Your task to perform on an android device: Search for "acer nitro" on newegg.com, select the first entry, and add it to the cart. Image 0: 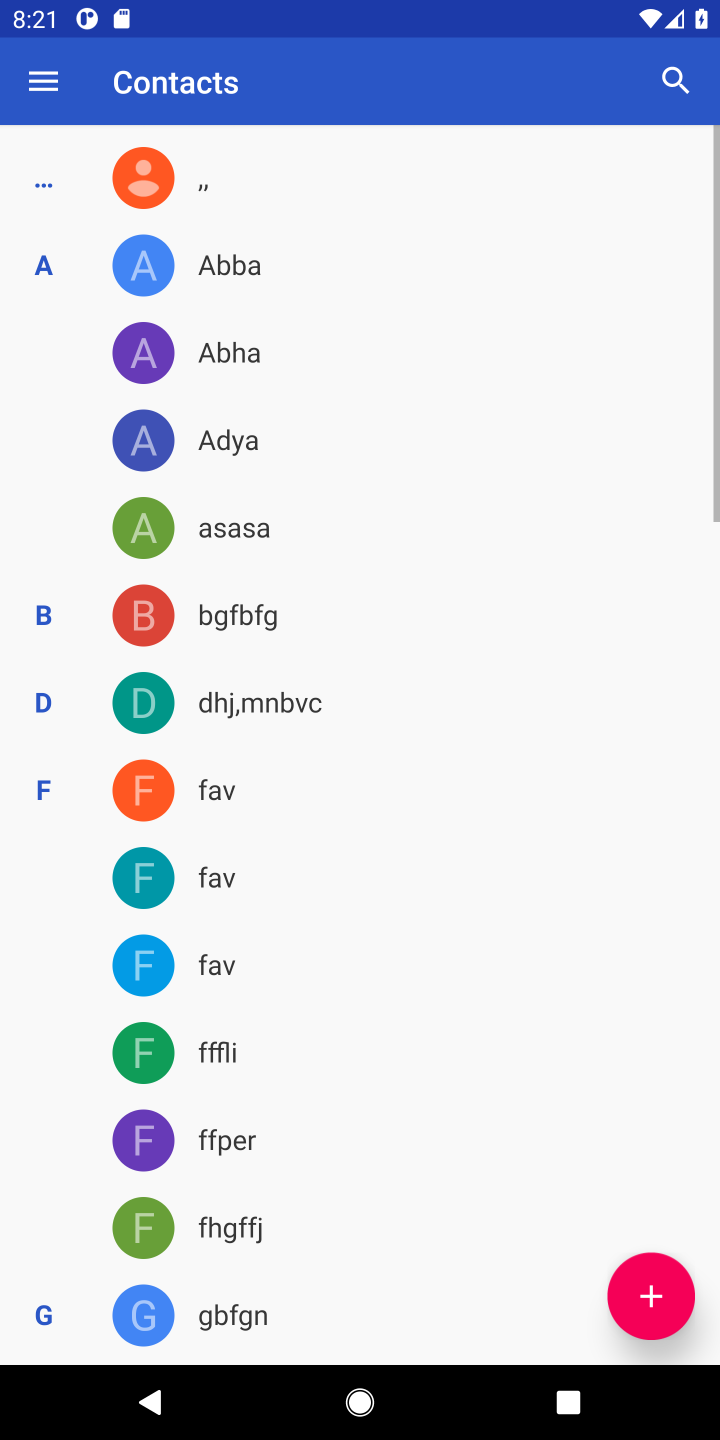
Step 0: press home button
Your task to perform on an android device: Search for "acer nitro" on newegg.com, select the first entry, and add it to the cart. Image 1: 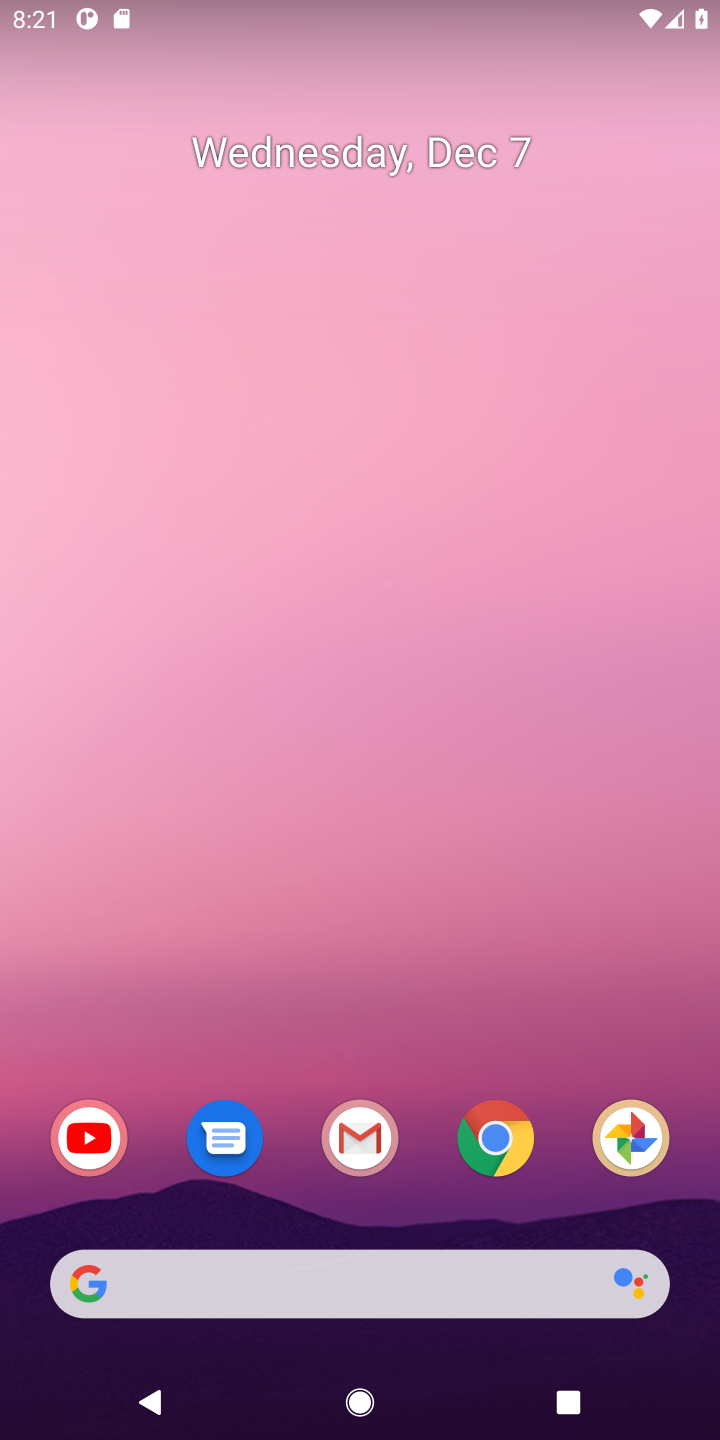
Step 1: click (160, 1295)
Your task to perform on an android device: Search for "acer nitro" on newegg.com, select the first entry, and add it to the cart. Image 2: 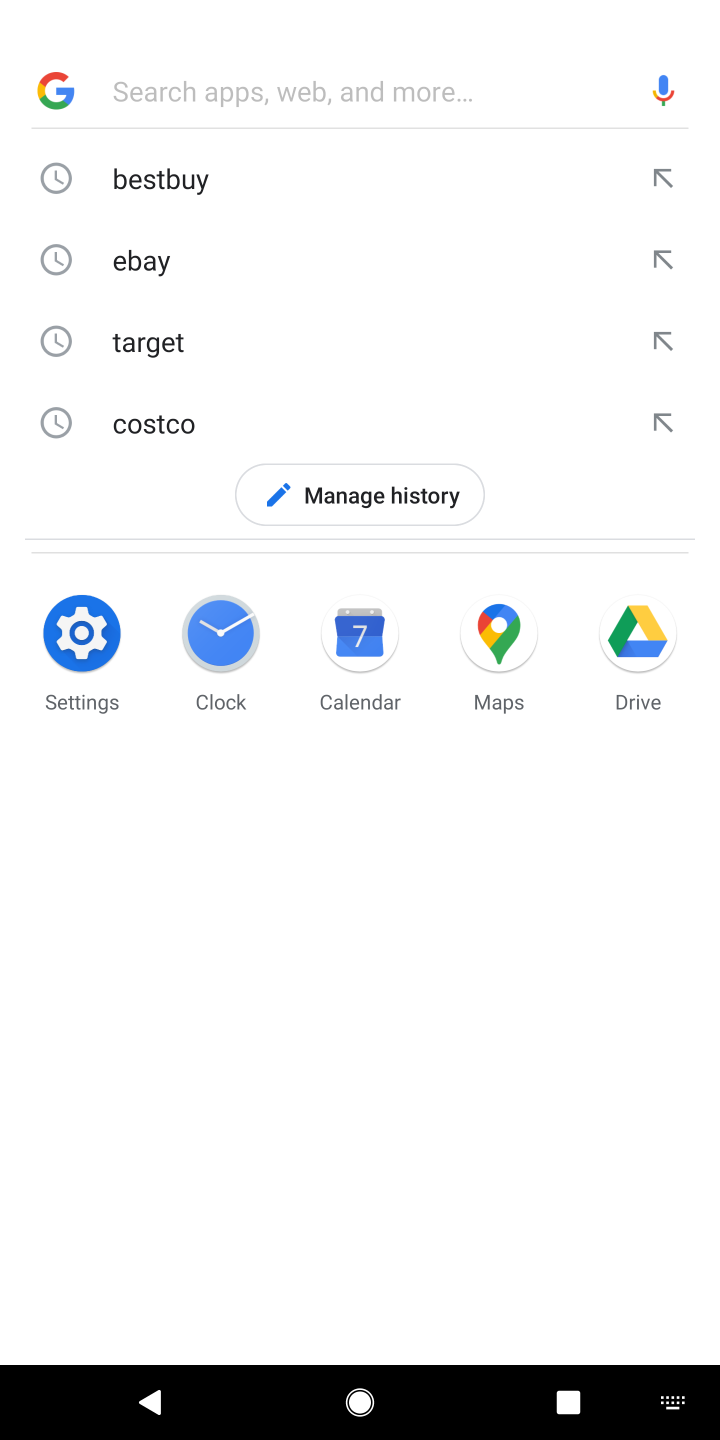
Step 2: type "newegg.com"
Your task to perform on an android device: Search for "acer nitro" on newegg.com, select the first entry, and add it to the cart. Image 3: 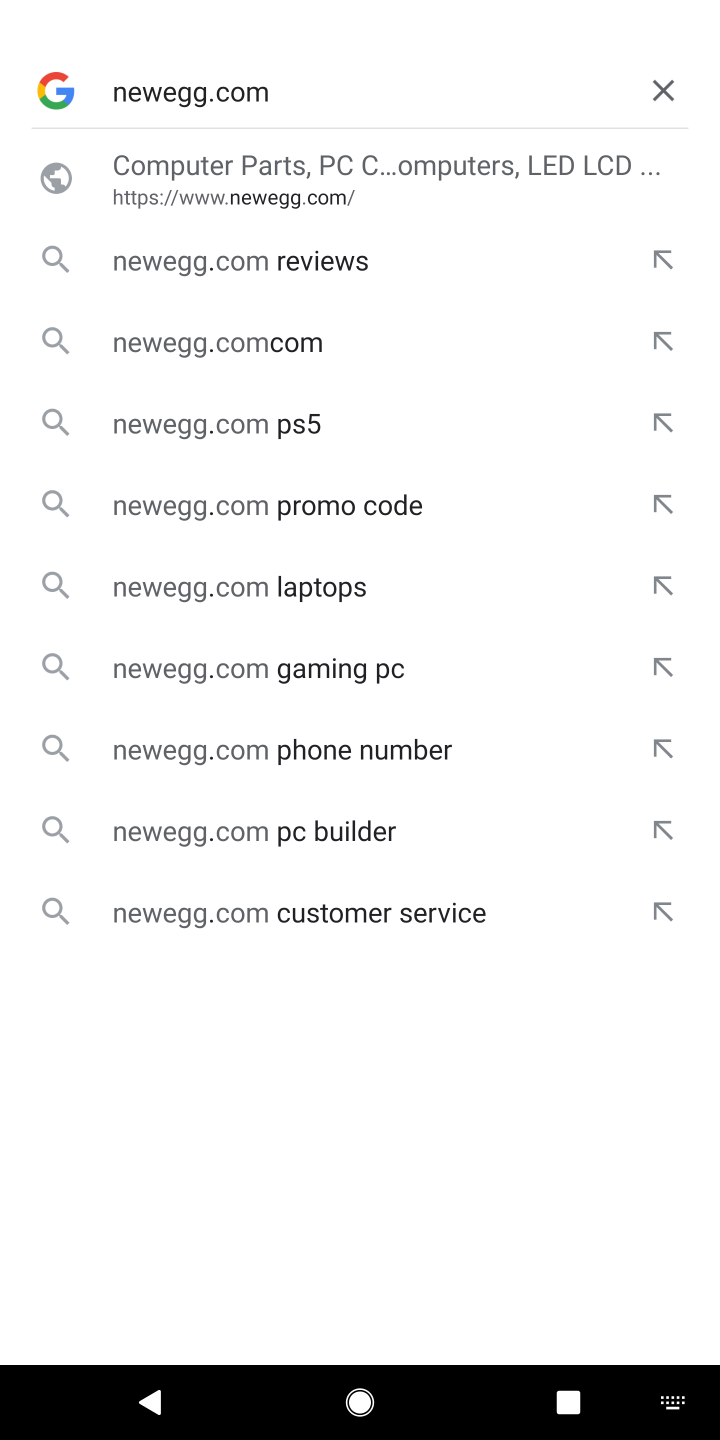
Step 3: press enter
Your task to perform on an android device: Search for "acer nitro" on newegg.com, select the first entry, and add it to the cart. Image 4: 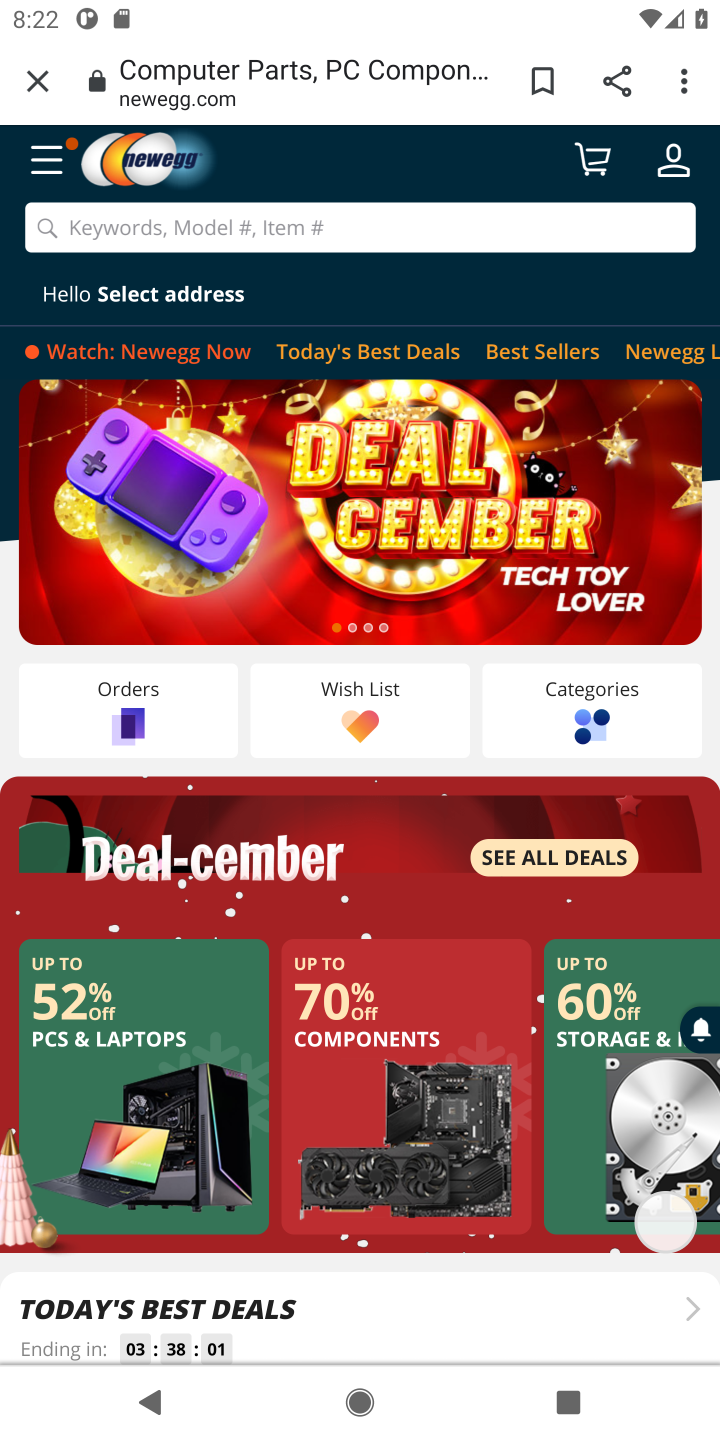
Step 4: click (151, 231)
Your task to perform on an android device: Search for "acer nitro" on newegg.com, select the first entry, and add it to the cart. Image 5: 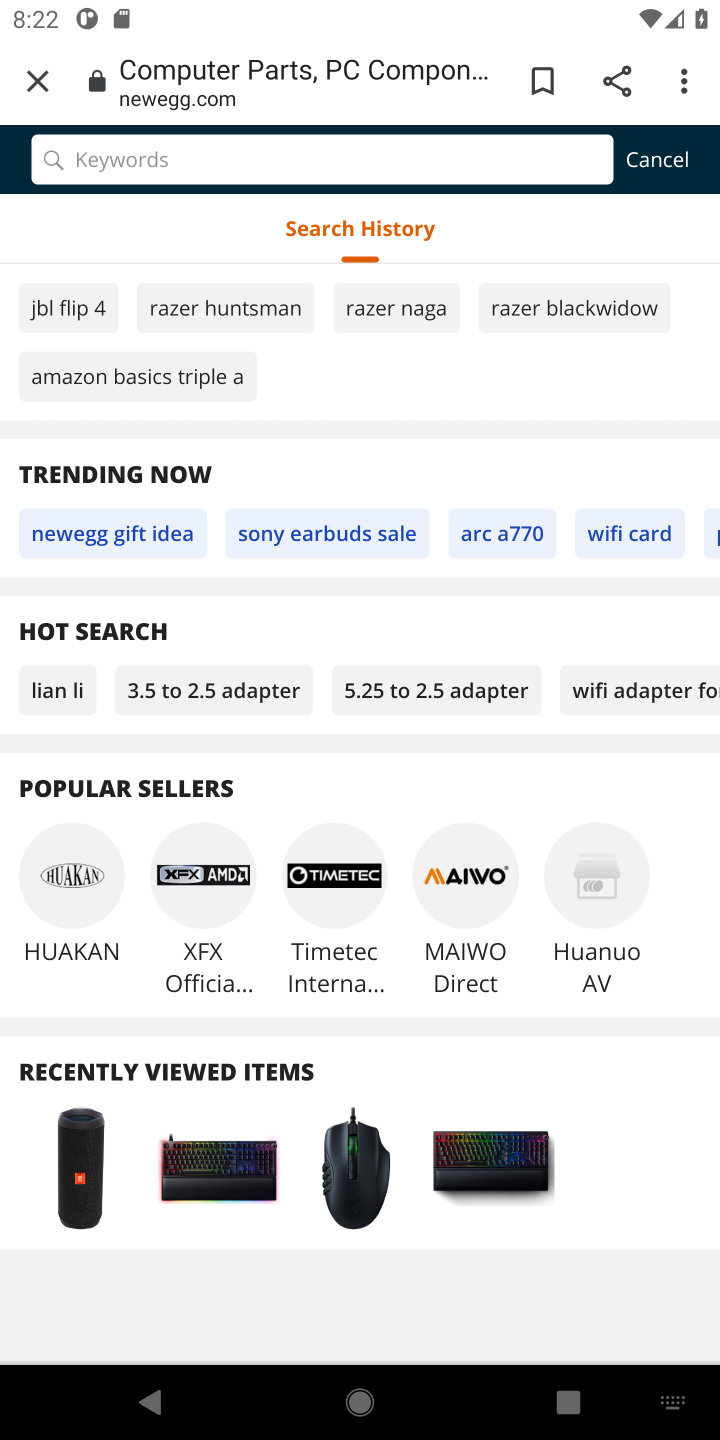
Step 5: type "acer nitro"
Your task to perform on an android device: Search for "acer nitro" on newegg.com, select the first entry, and add it to the cart. Image 6: 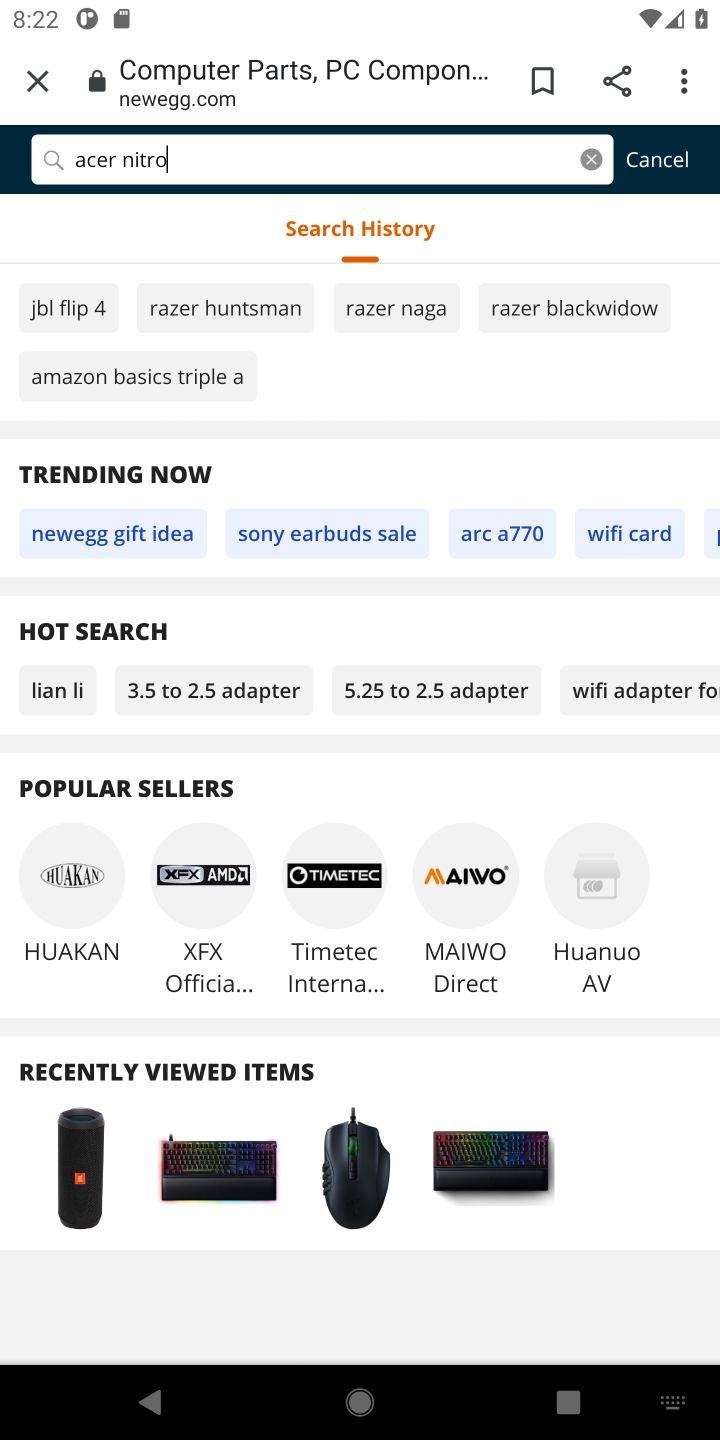
Step 6: press enter
Your task to perform on an android device: Search for "acer nitro" on newegg.com, select the first entry, and add it to the cart. Image 7: 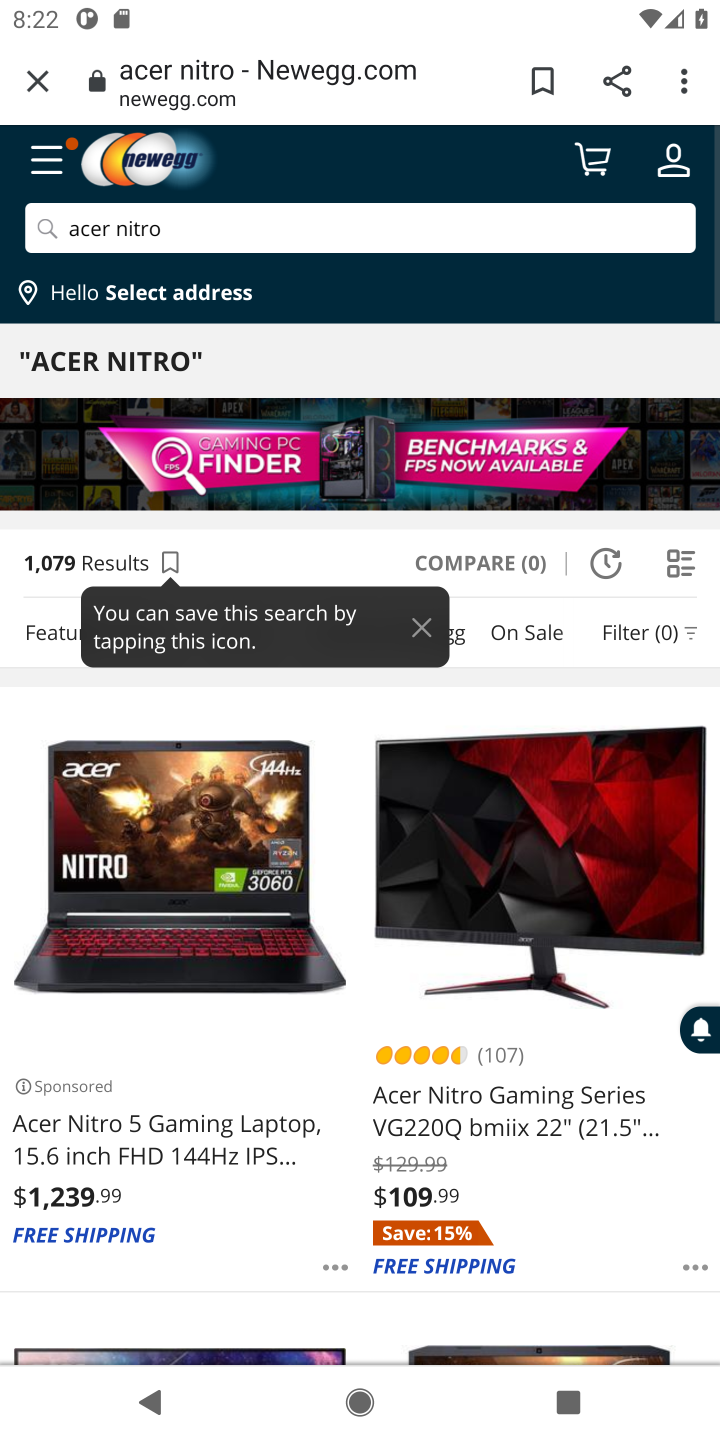
Step 7: drag from (166, 1237) to (248, 667)
Your task to perform on an android device: Search for "acer nitro" on newegg.com, select the first entry, and add it to the cart. Image 8: 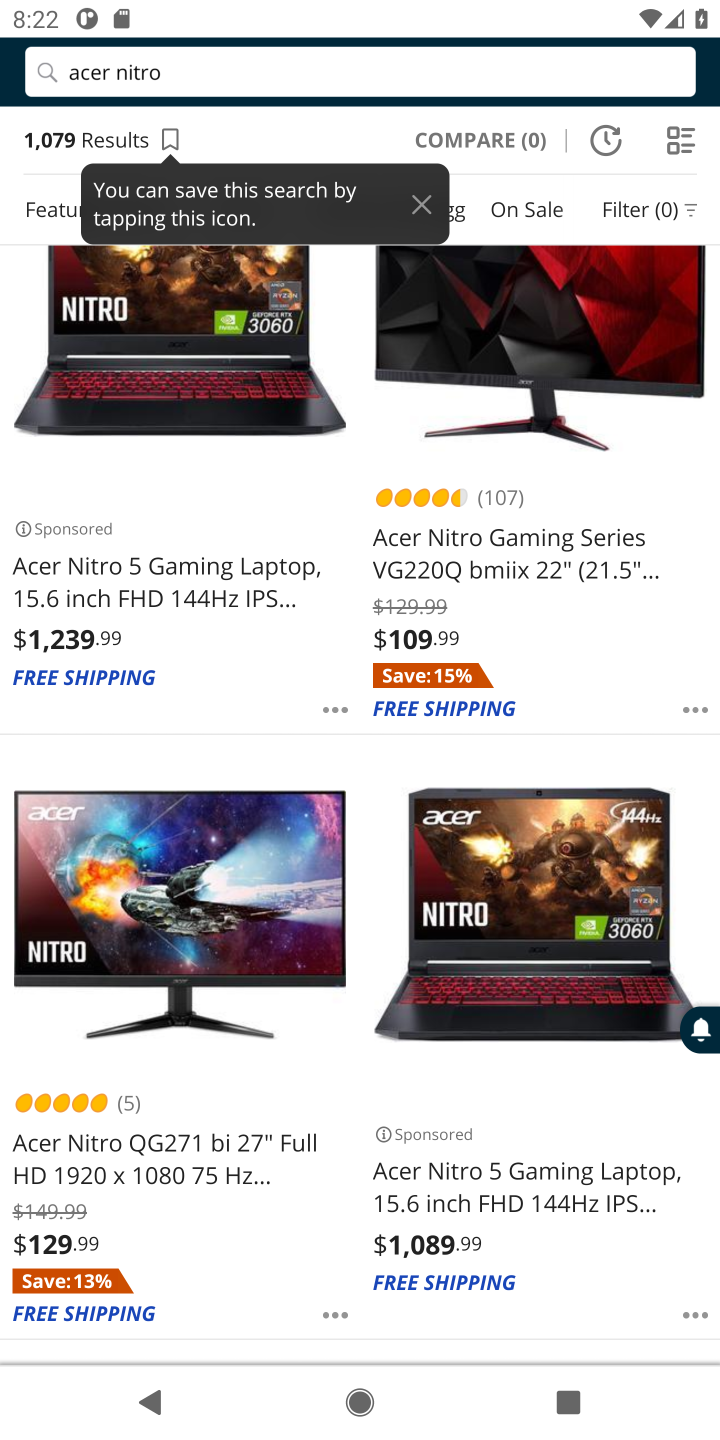
Step 8: click (158, 570)
Your task to perform on an android device: Search for "acer nitro" on newegg.com, select the first entry, and add it to the cart. Image 9: 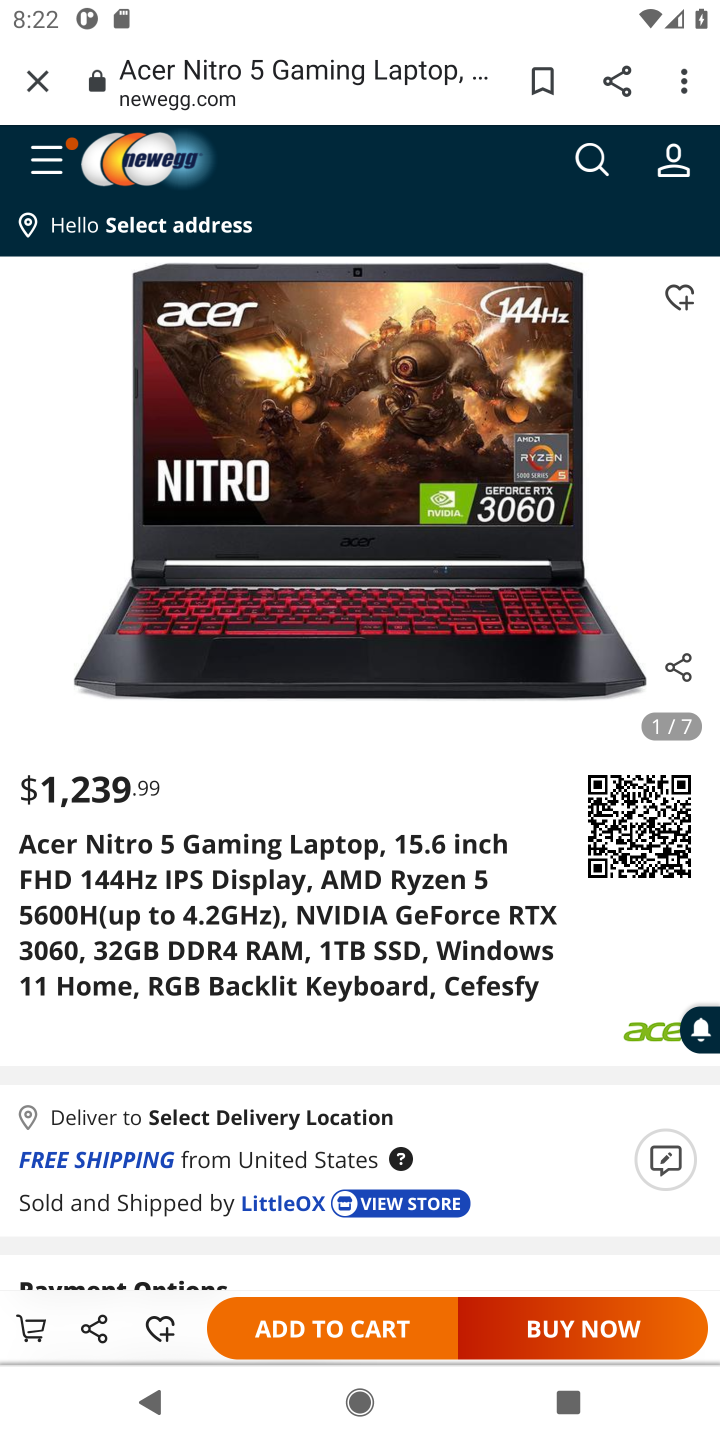
Step 9: click (310, 1328)
Your task to perform on an android device: Search for "acer nitro" on newegg.com, select the first entry, and add it to the cart. Image 10: 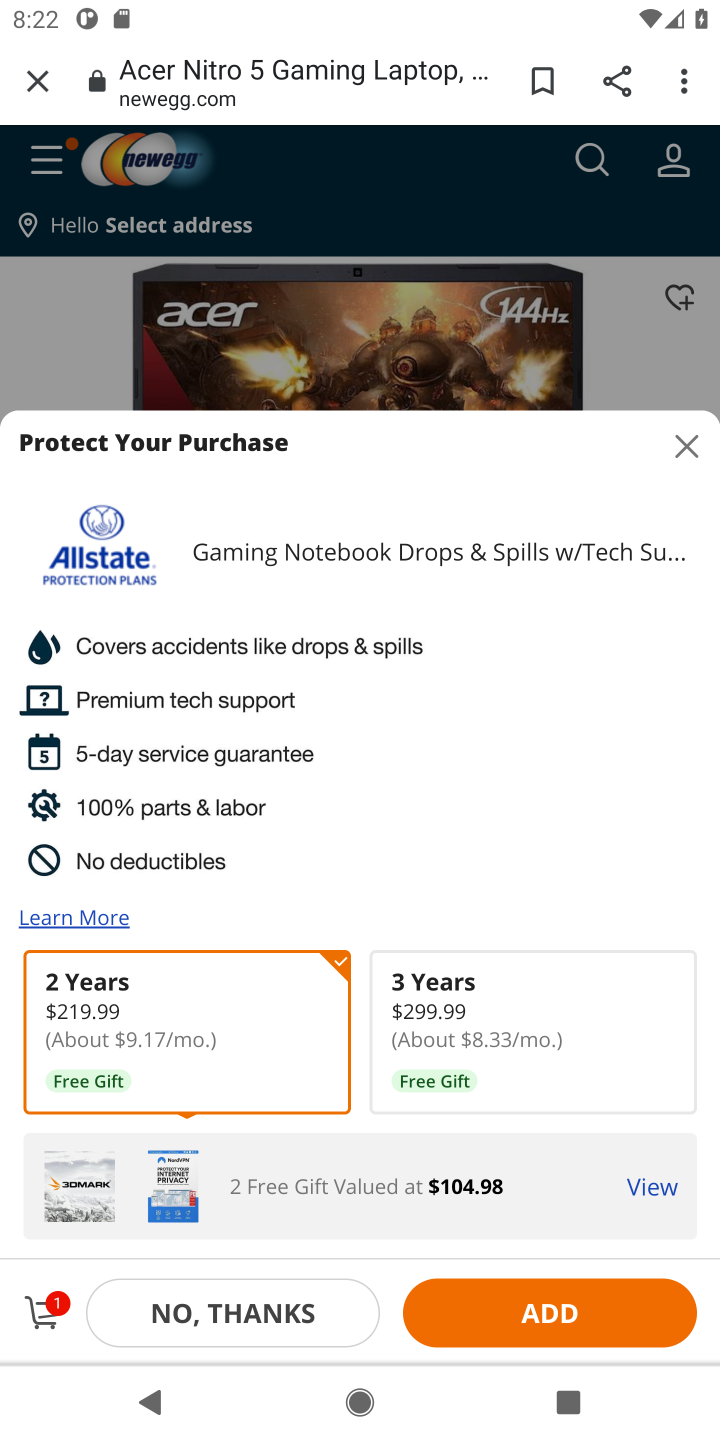
Step 10: click (209, 1319)
Your task to perform on an android device: Search for "acer nitro" on newegg.com, select the first entry, and add it to the cart. Image 11: 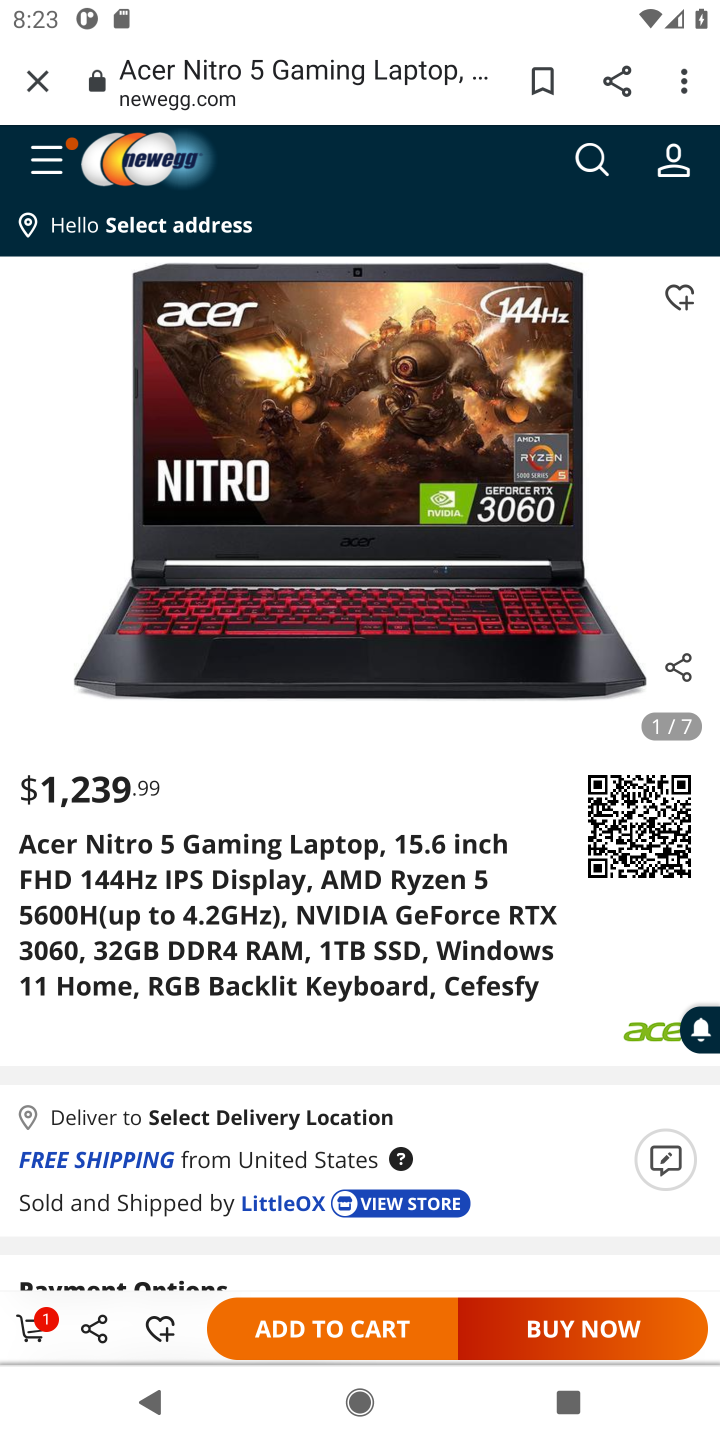
Step 11: task complete